Your task to perform on an android device: Set the phone to "Do not disturb". Image 0: 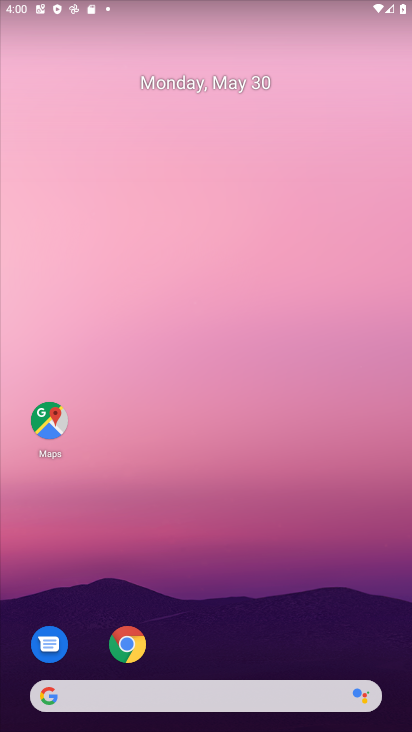
Step 0: drag from (273, 588) to (269, 6)
Your task to perform on an android device: Set the phone to "Do not disturb". Image 1: 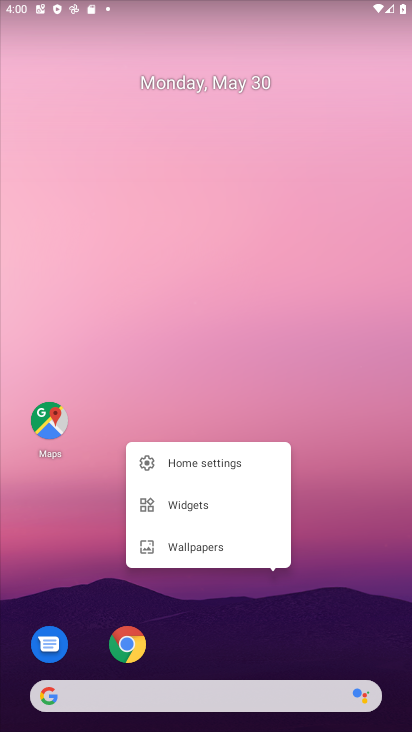
Step 1: click (291, 341)
Your task to perform on an android device: Set the phone to "Do not disturb". Image 2: 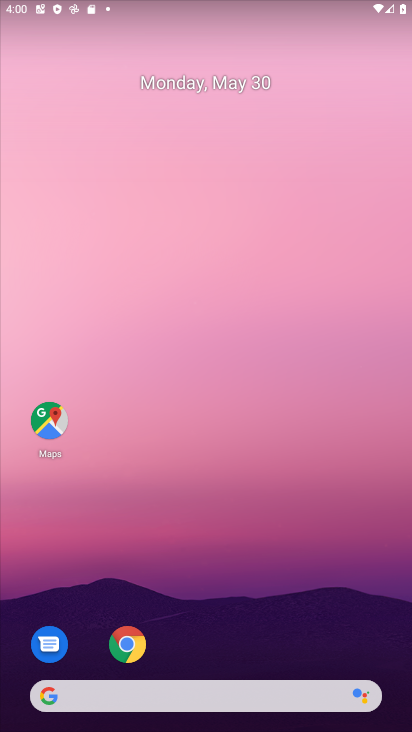
Step 2: drag from (287, 629) to (241, 192)
Your task to perform on an android device: Set the phone to "Do not disturb". Image 3: 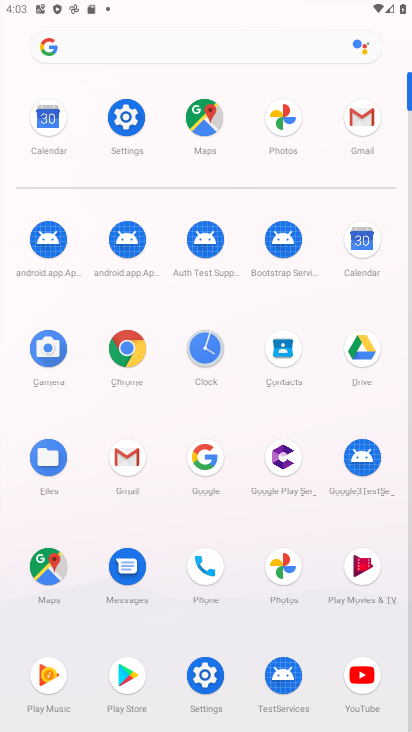
Step 3: click (141, 123)
Your task to perform on an android device: Set the phone to "Do not disturb". Image 4: 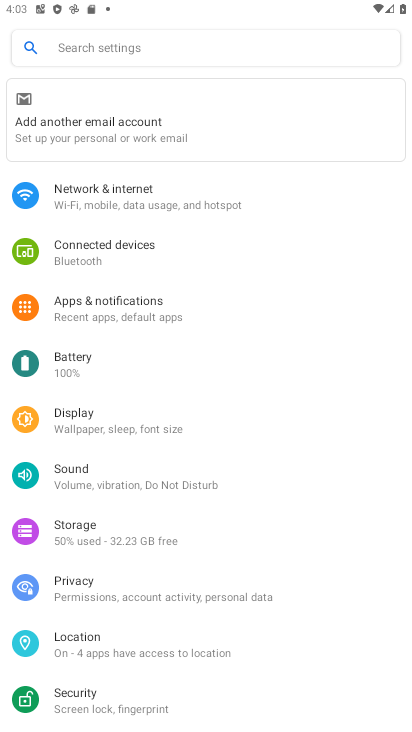
Step 4: click (199, 486)
Your task to perform on an android device: Set the phone to "Do not disturb". Image 5: 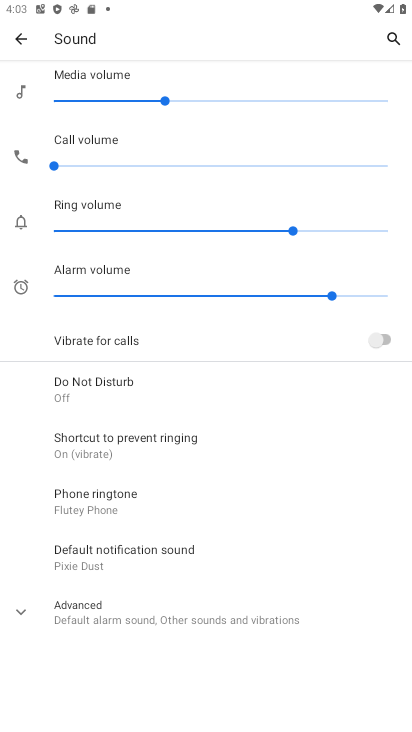
Step 5: task complete